Your task to perform on an android device: turn off notifications in google photos Image 0: 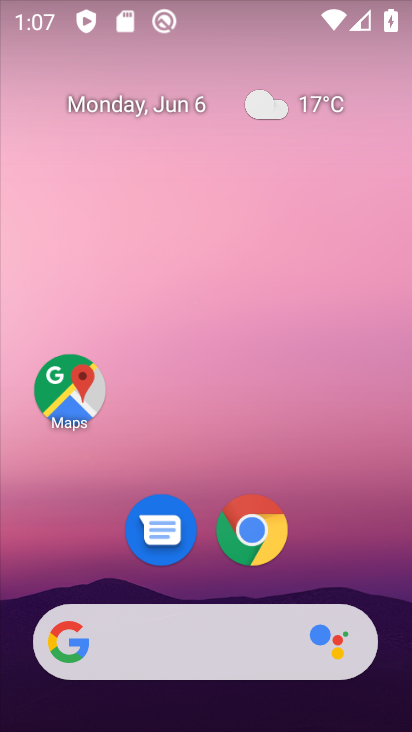
Step 0: press home button
Your task to perform on an android device: turn off notifications in google photos Image 1: 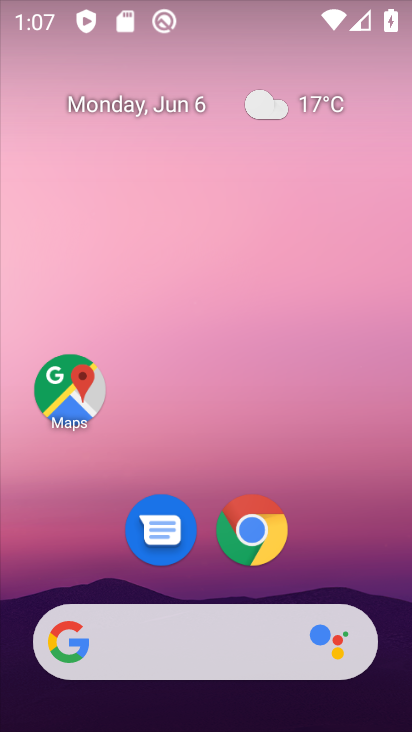
Step 1: click (361, 584)
Your task to perform on an android device: turn off notifications in google photos Image 2: 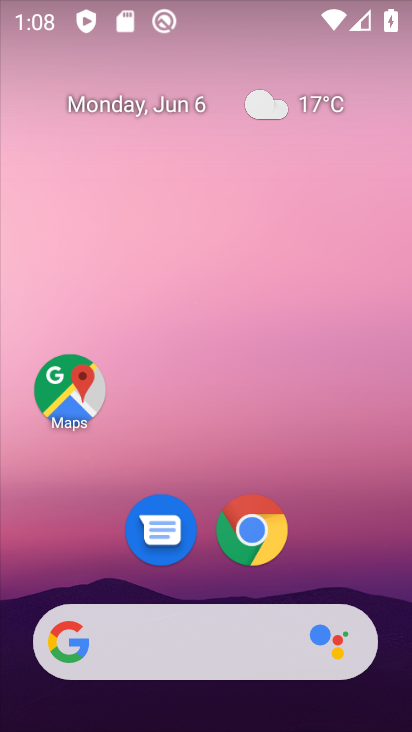
Step 2: drag from (321, 573) to (286, 304)
Your task to perform on an android device: turn off notifications in google photos Image 3: 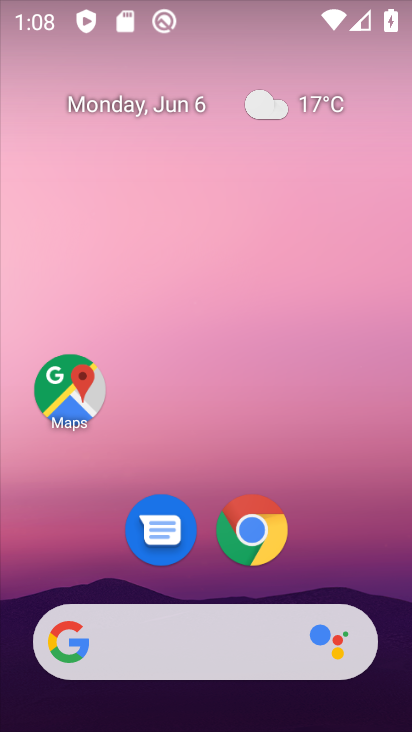
Step 3: drag from (203, 589) to (203, 246)
Your task to perform on an android device: turn off notifications in google photos Image 4: 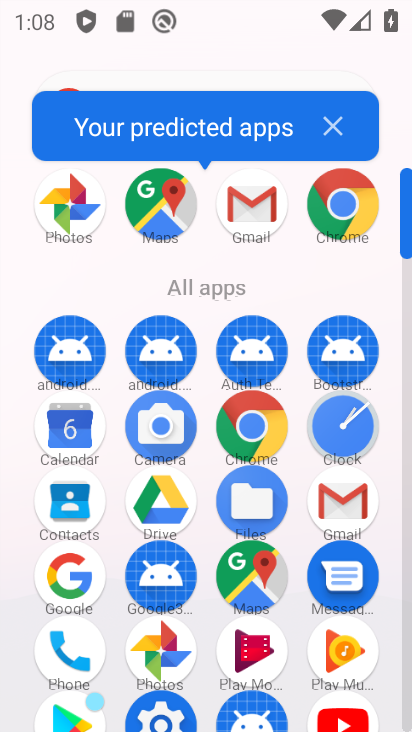
Step 4: click (167, 631)
Your task to perform on an android device: turn off notifications in google photos Image 5: 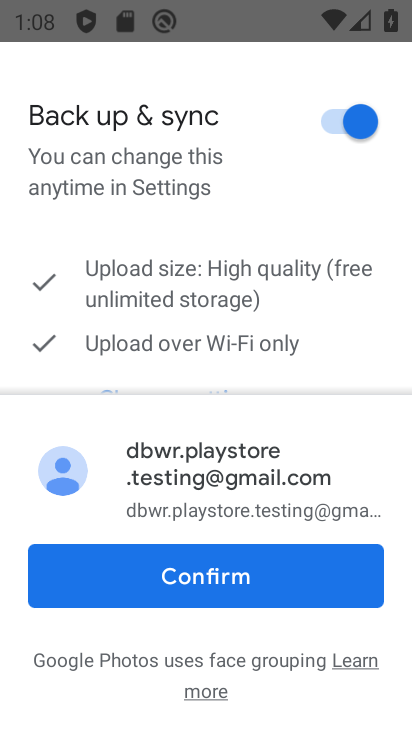
Step 5: click (253, 579)
Your task to perform on an android device: turn off notifications in google photos Image 6: 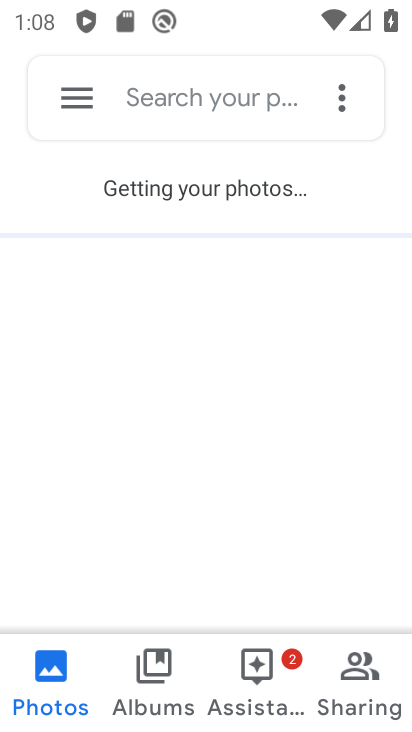
Step 6: click (65, 80)
Your task to perform on an android device: turn off notifications in google photos Image 7: 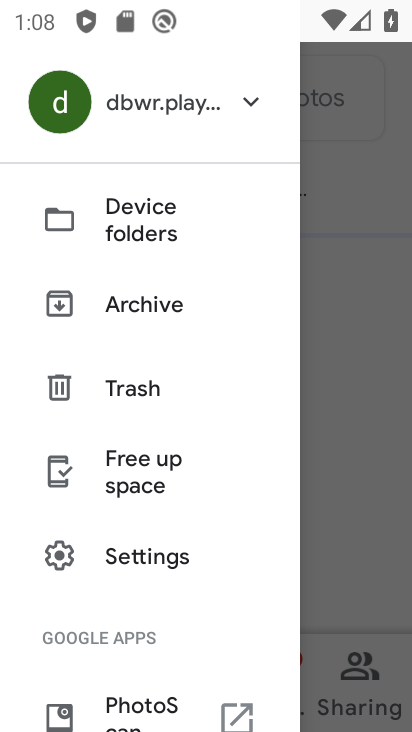
Step 7: click (120, 545)
Your task to perform on an android device: turn off notifications in google photos Image 8: 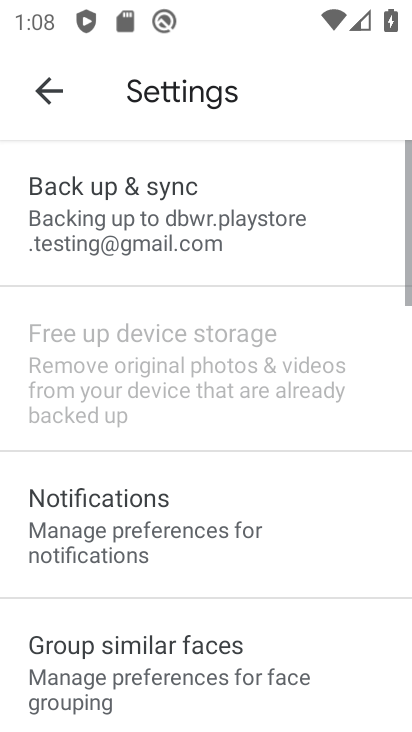
Step 8: click (167, 539)
Your task to perform on an android device: turn off notifications in google photos Image 9: 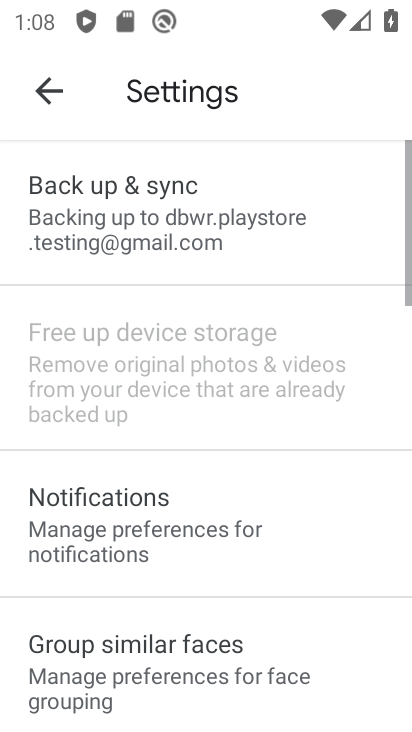
Step 9: click (161, 480)
Your task to perform on an android device: turn off notifications in google photos Image 10: 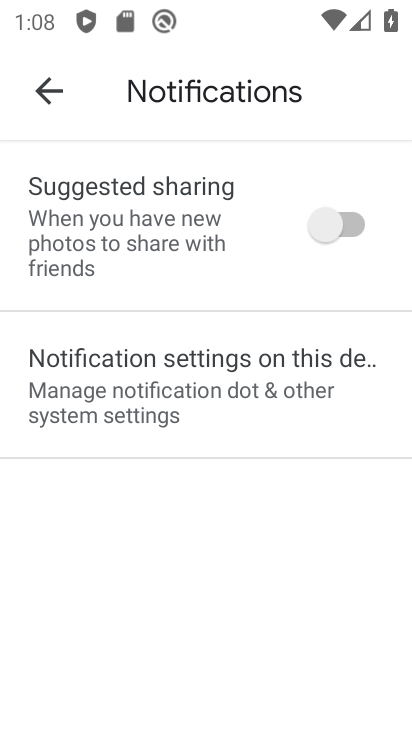
Step 10: click (269, 368)
Your task to perform on an android device: turn off notifications in google photos Image 11: 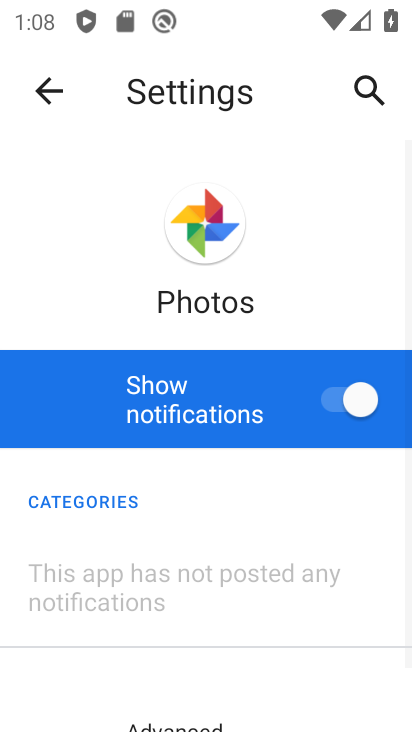
Step 11: click (337, 385)
Your task to perform on an android device: turn off notifications in google photos Image 12: 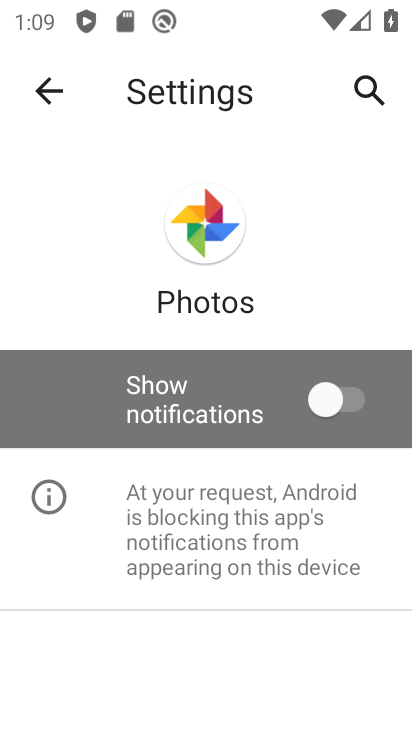
Step 12: task complete